Your task to perform on an android device: Open calendar and show me the fourth week of next month Image 0: 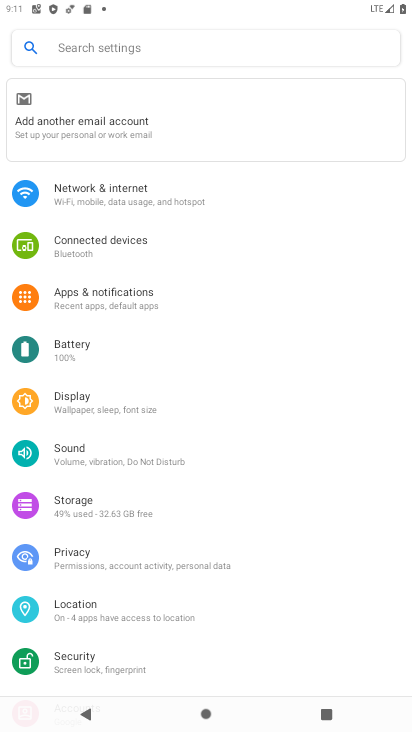
Step 0: press home button
Your task to perform on an android device: Open calendar and show me the fourth week of next month Image 1: 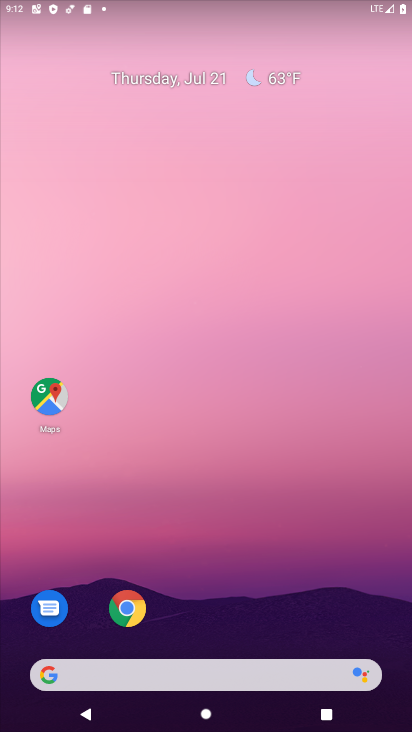
Step 1: click (210, 189)
Your task to perform on an android device: Open calendar and show me the fourth week of next month Image 2: 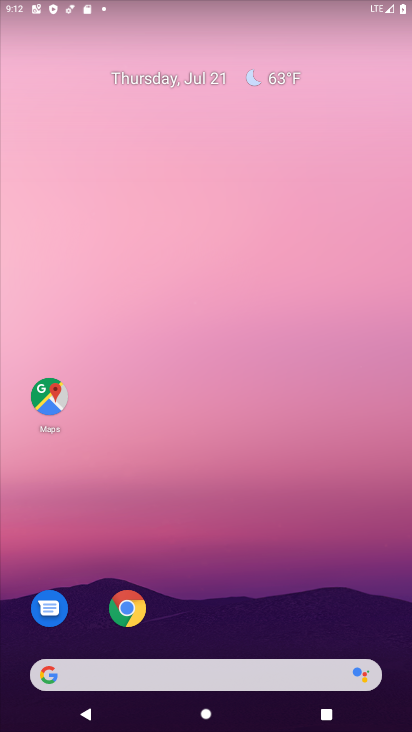
Step 2: drag from (244, 626) to (267, 348)
Your task to perform on an android device: Open calendar and show me the fourth week of next month Image 3: 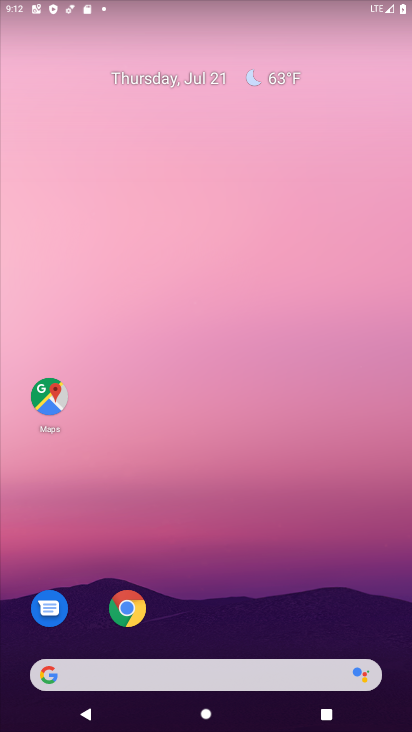
Step 3: drag from (223, 637) to (356, 41)
Your task to perform on an android device: Open calendar and show me the fourth week of next month Image 4: 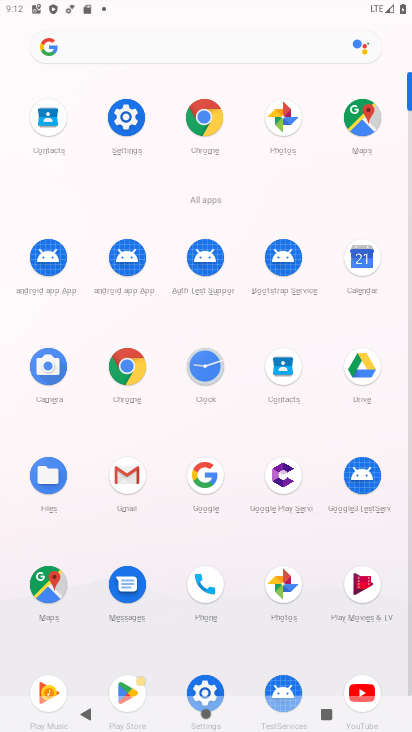
Step 4: click (362, 268)
Your task to perform on an android device: Open calendar and show me the fourth week of next month Image 5: 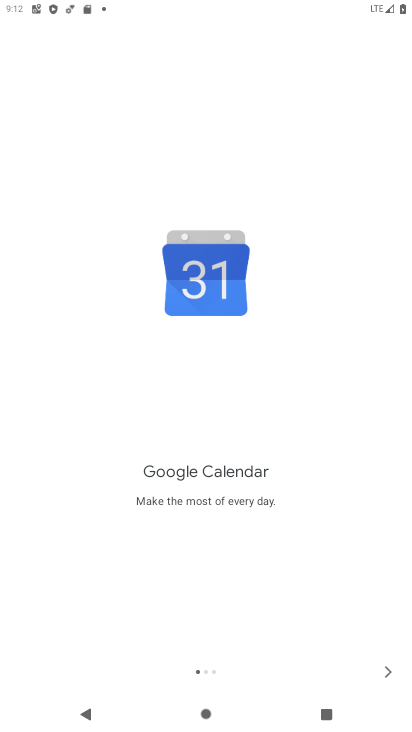
Step 5: click (383, 669)
Your task to perform on an android device: Open calendar and show me the fourth week of next month Image 6: 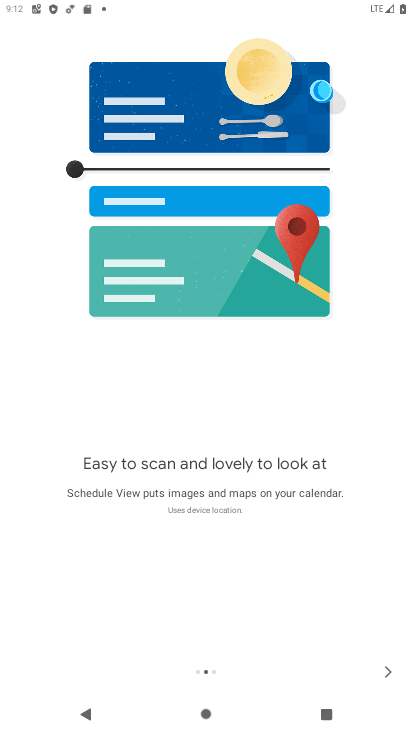
Step 6: click (383, 669)
Your task to perform on an android device: Open calendar and show me the fourth week of next month Image 7: 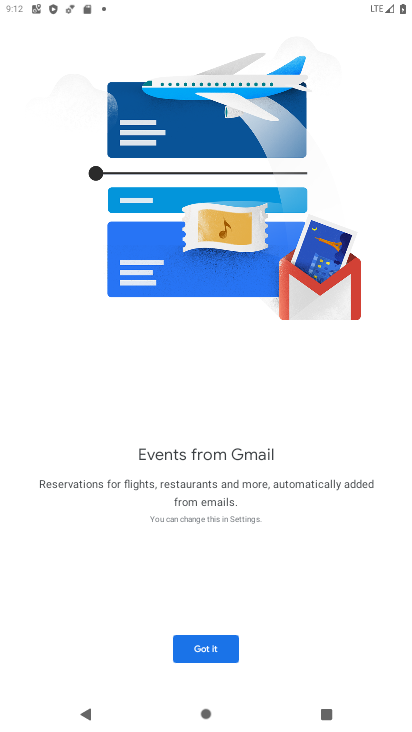
Step 7: click (383, 669)
Your task to perform on an android device: Open calendar and show me the fourth week of next month Image 8: 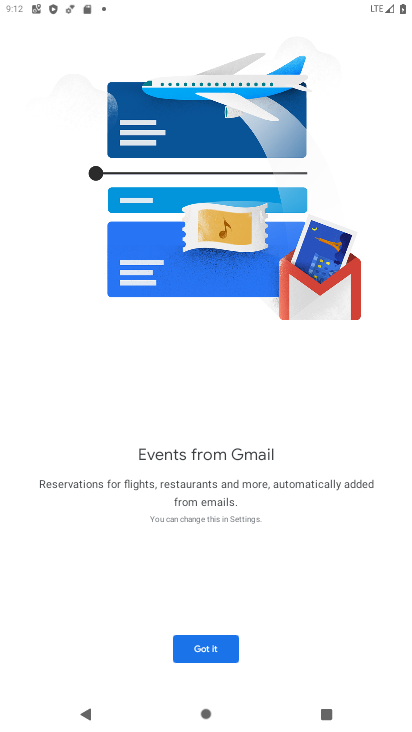
Step 8: click (197, 654)
Your task to perform on an android device: Open calendar and show me the fourth week of next month Image 9: 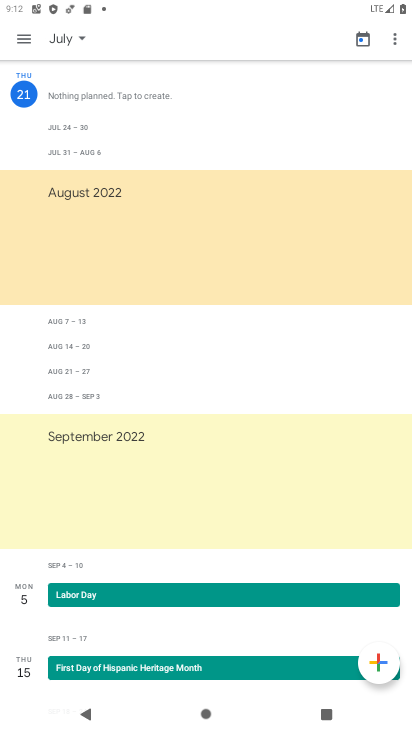
Step 9: click (197, 654)
Your task to perform on an android device: Open calendar and show me the fourth week of next month Image 10: 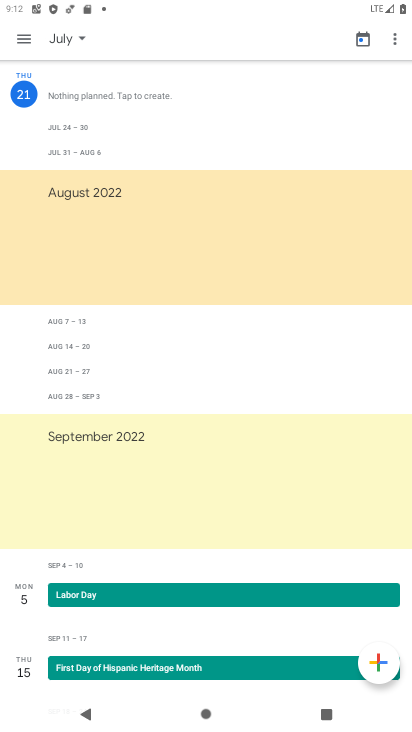
Step 10: click (78, 40)
Your task to perform on an android device: Open calendar and show me the fourth week of next month Image 11: 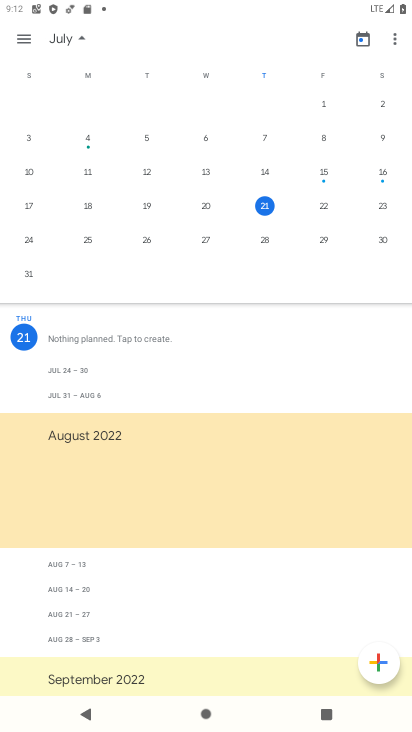
Step 11: drag from (357, 221) to (12, 164)
Your task to perform on an android device: Open calendar and show me the fourth week of next month Image 12: 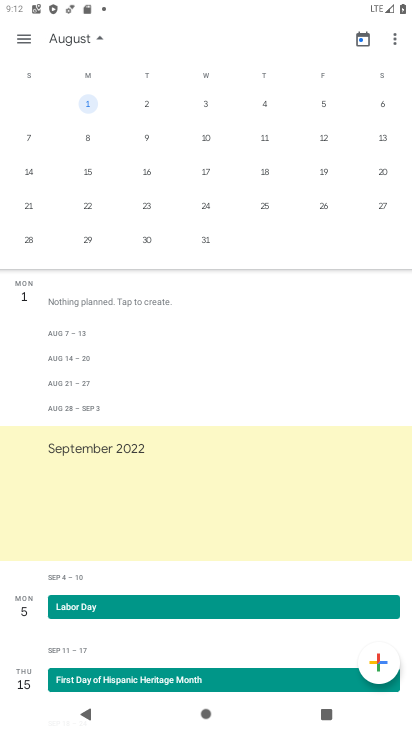
Step 12: click (87, 212)
Your task to perform on an android device: Open calendar and show me the fourth week of next month Image 13: 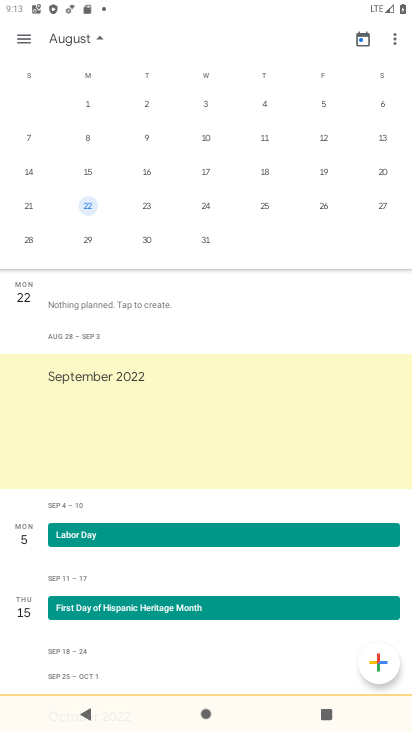
Step 13: task complete